Your task to perform on an android device: see creations saved in the google photos Image 0: 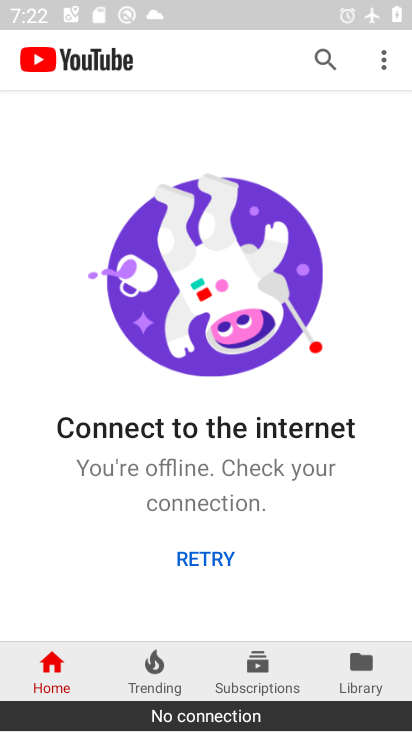
Step 0: press back button
Your task to perform on an android device: see creations saved in the google photos Image 1: 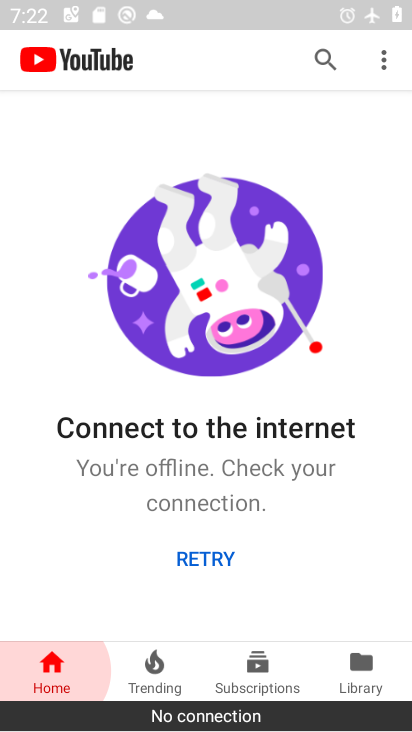
Step 1: press back button
Your task to perform on an android device: see creations saved in the google photos Image 2: 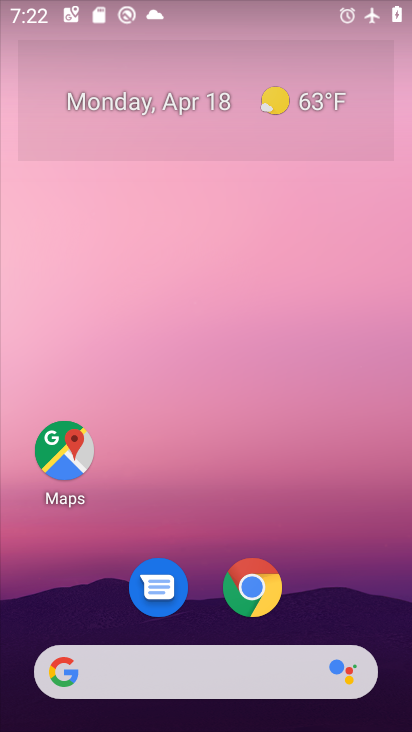
Step 2: drag from (356, 596) to (239, 117)
Your task to perform on an android device: see creations saved in the google photos Image 3: 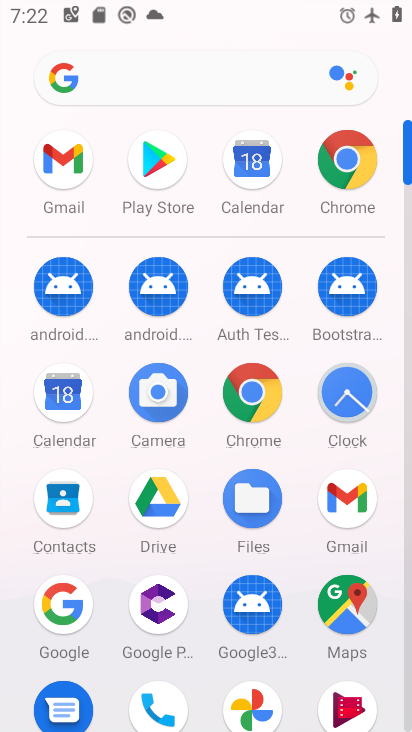
Step 3: click (261, 701)
Your task to perform on an android device: see creations saved in the google photos Image 4: 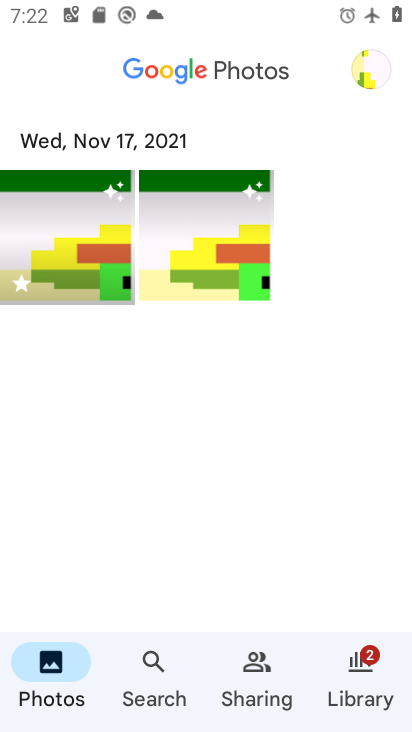
Step 4: click (347, 690)
Your task to perform on an android device: see creations saved in the google photos Image 5: 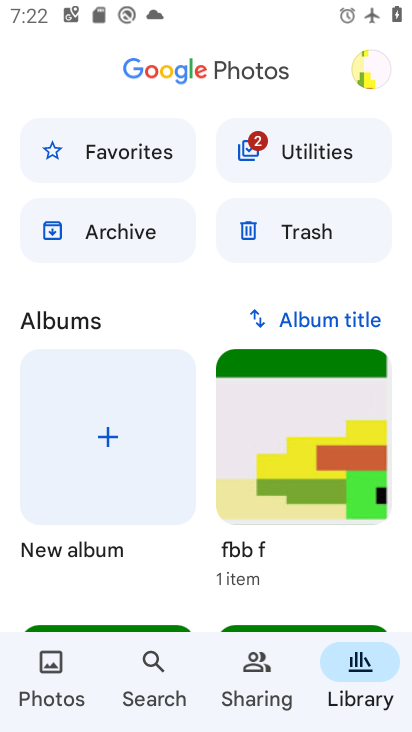
Step 5: click (364, 83)
Your task to perform on an android device: see creations saved in the google photos Image 6: 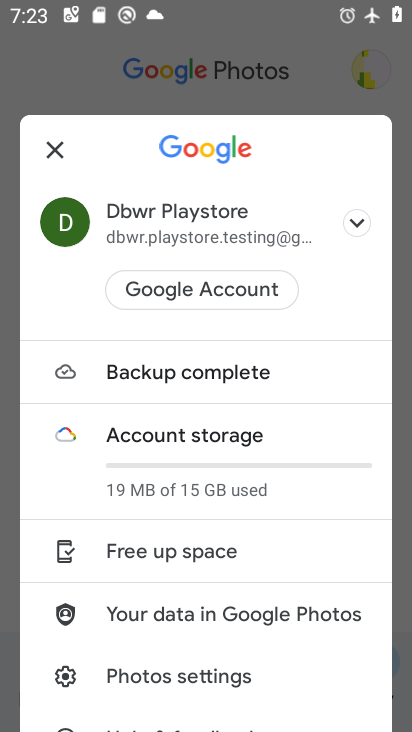
Step 6: click (259, 104)
Your task to perform on an android device: see creations saved in the google photos Image 7: 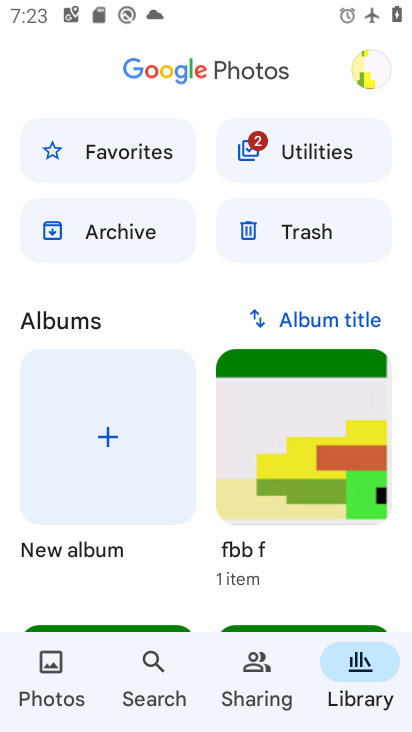
Step 7: task complete